Your task to perform on an android device: Find coffee shops on Maps Image 0: 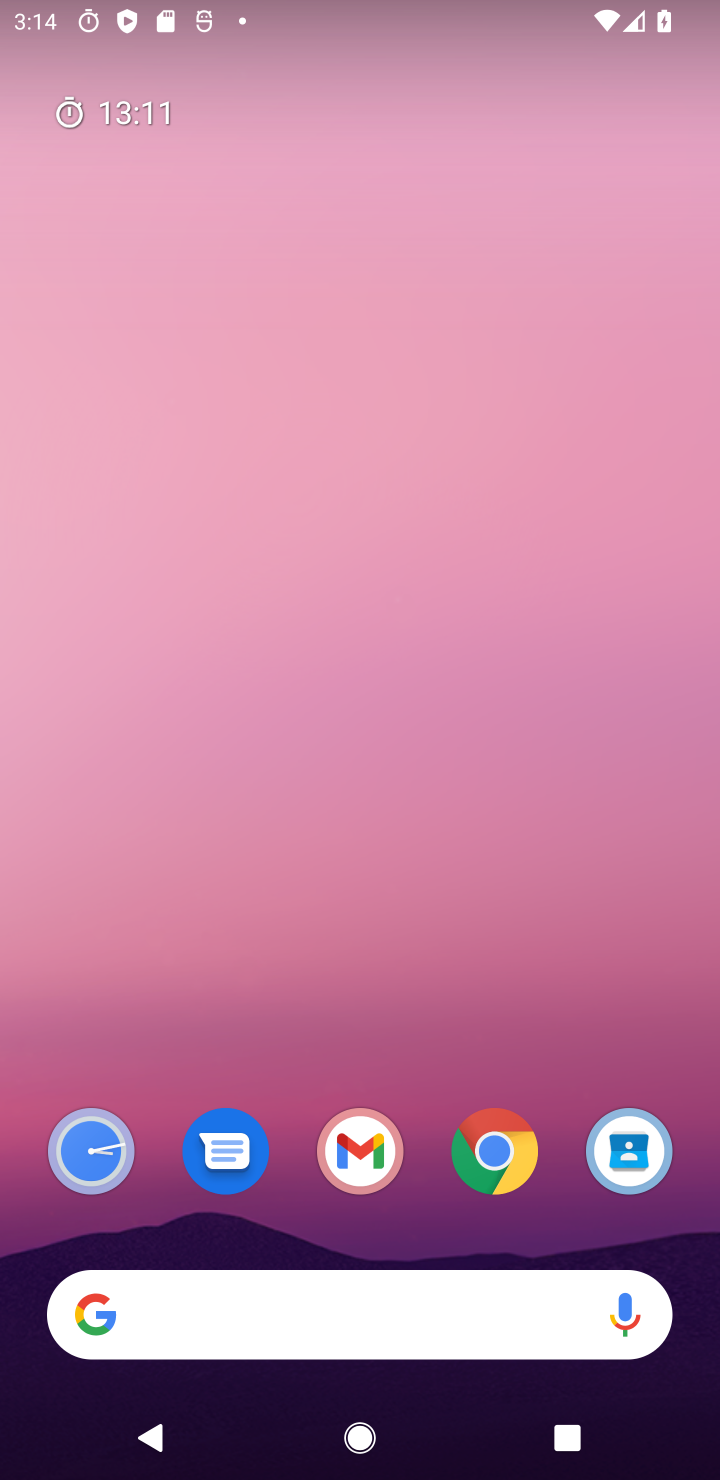
Step 0: click (503, 1181)
Your task to perform on an android device: Find coffee shops on Maps Image 1: 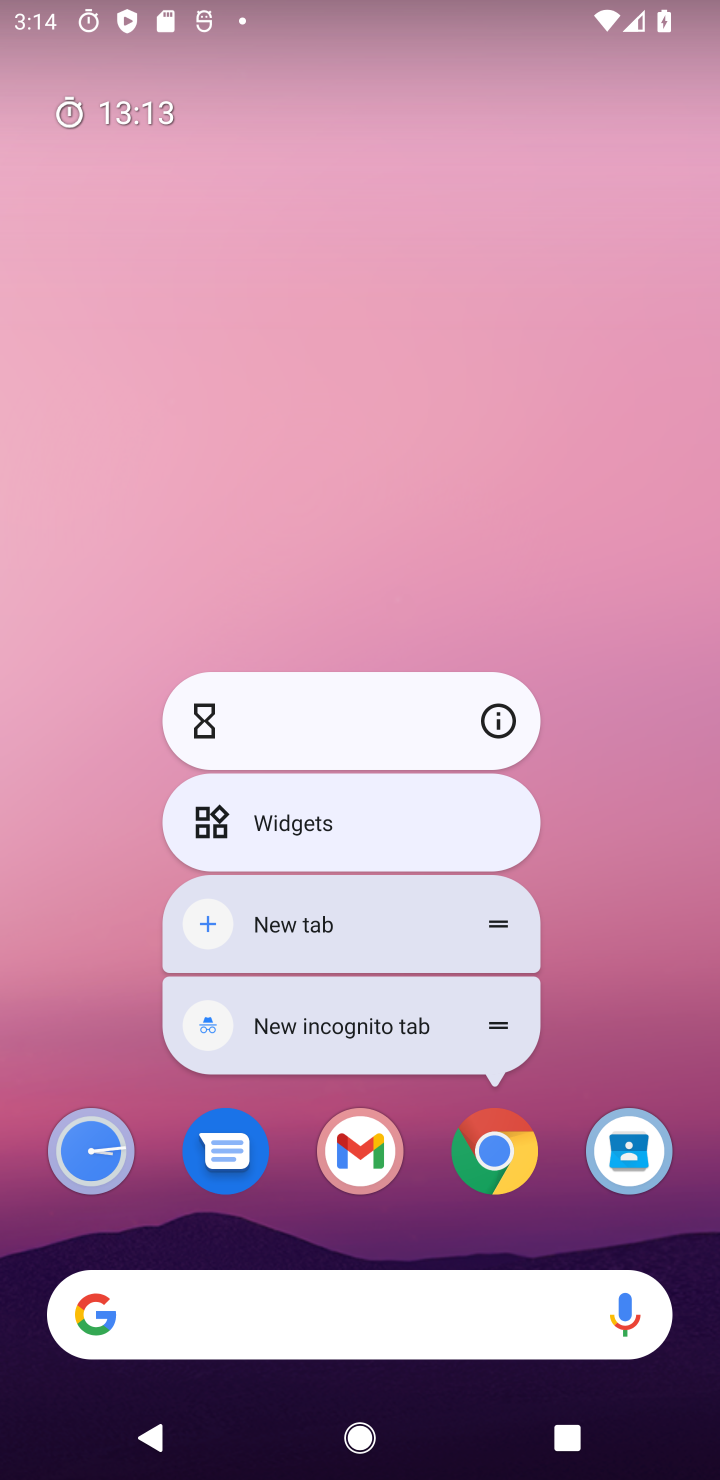
Step 1: click (503, 1181)
Your task to perform on an android device: Find coffee shops on Maps Image 2: 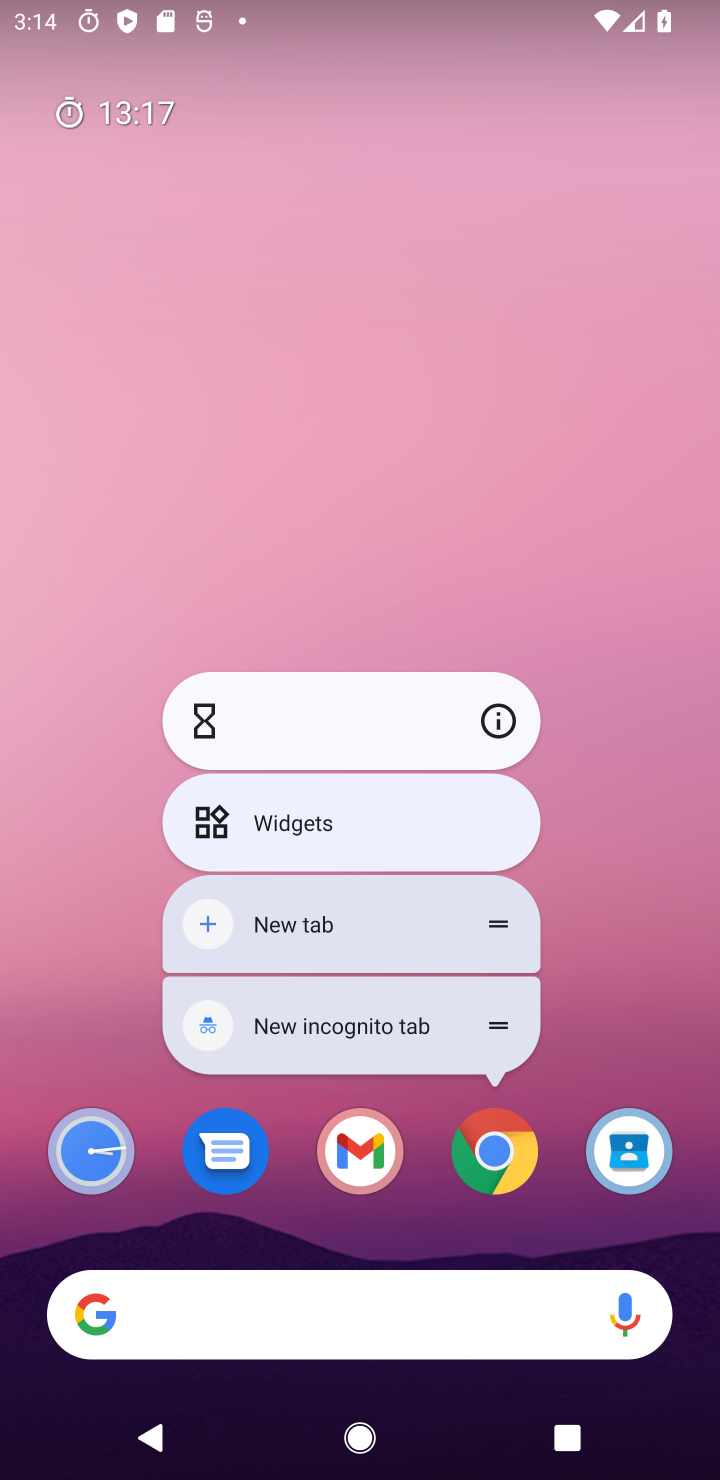
Step 2: click (479, 1143)
Your task to perform on an android device: Find coffee shops on Maps Image 3: 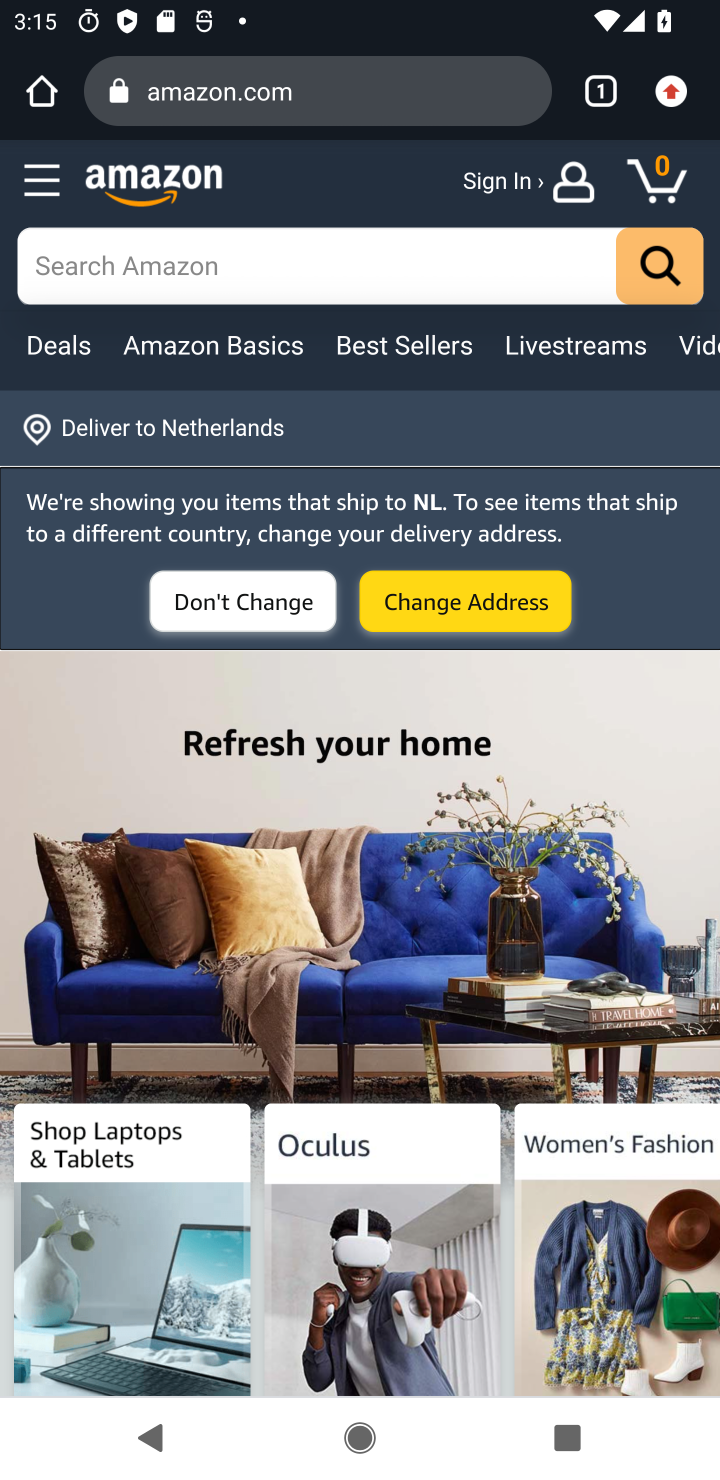
Step 3: press home button
Your task to perform on an android device: Find coffee shops on Maps Image 4: 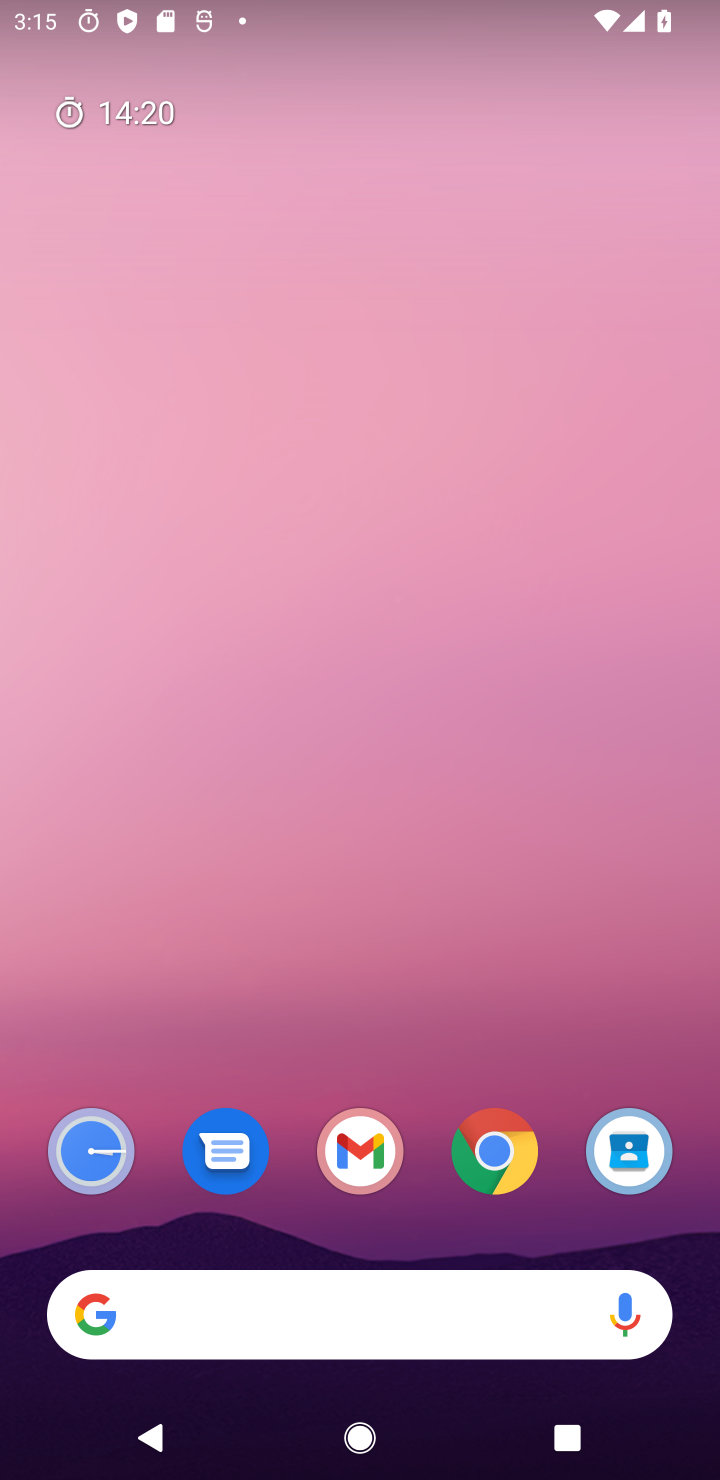
Step 4: drag from (418, 1063) to (460, 85)
Your task to perform on an android device: Find coffee shops on Maps Image 5: 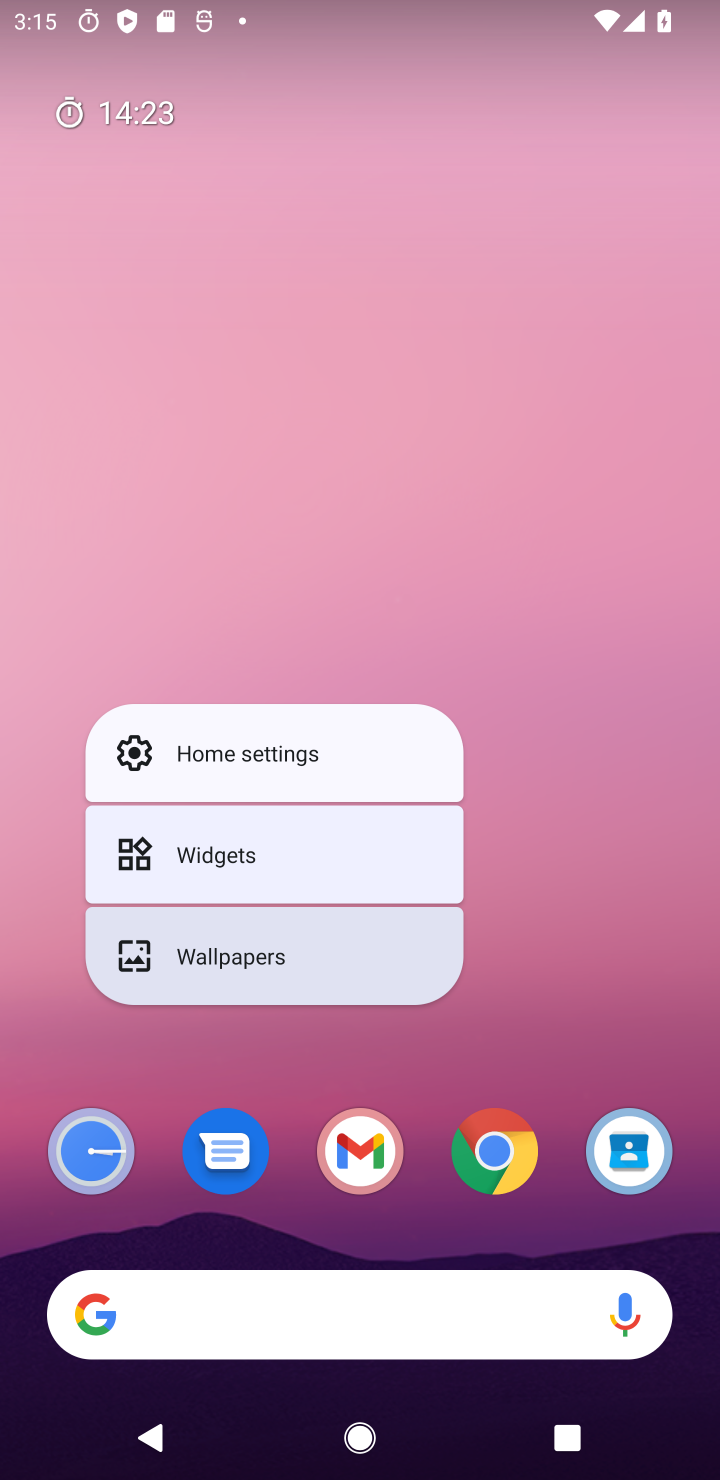
Step 5: click (661, 780)
Your task to perform on an android device: Find coffee shops on Maps Image 6: 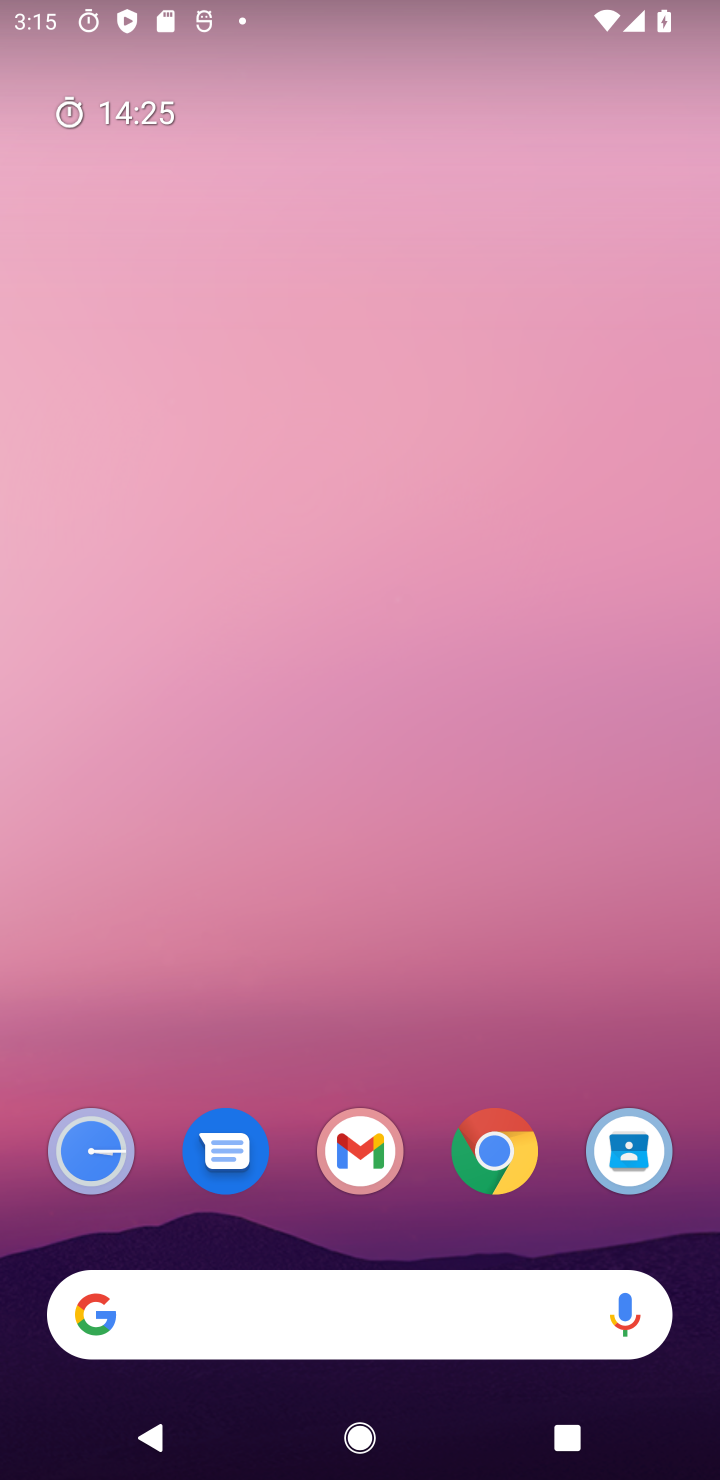
Step 6: drag from (461, 579) to (533, 0)
Your task to perform on an android device: Find coffee shops on Maps Image 7: 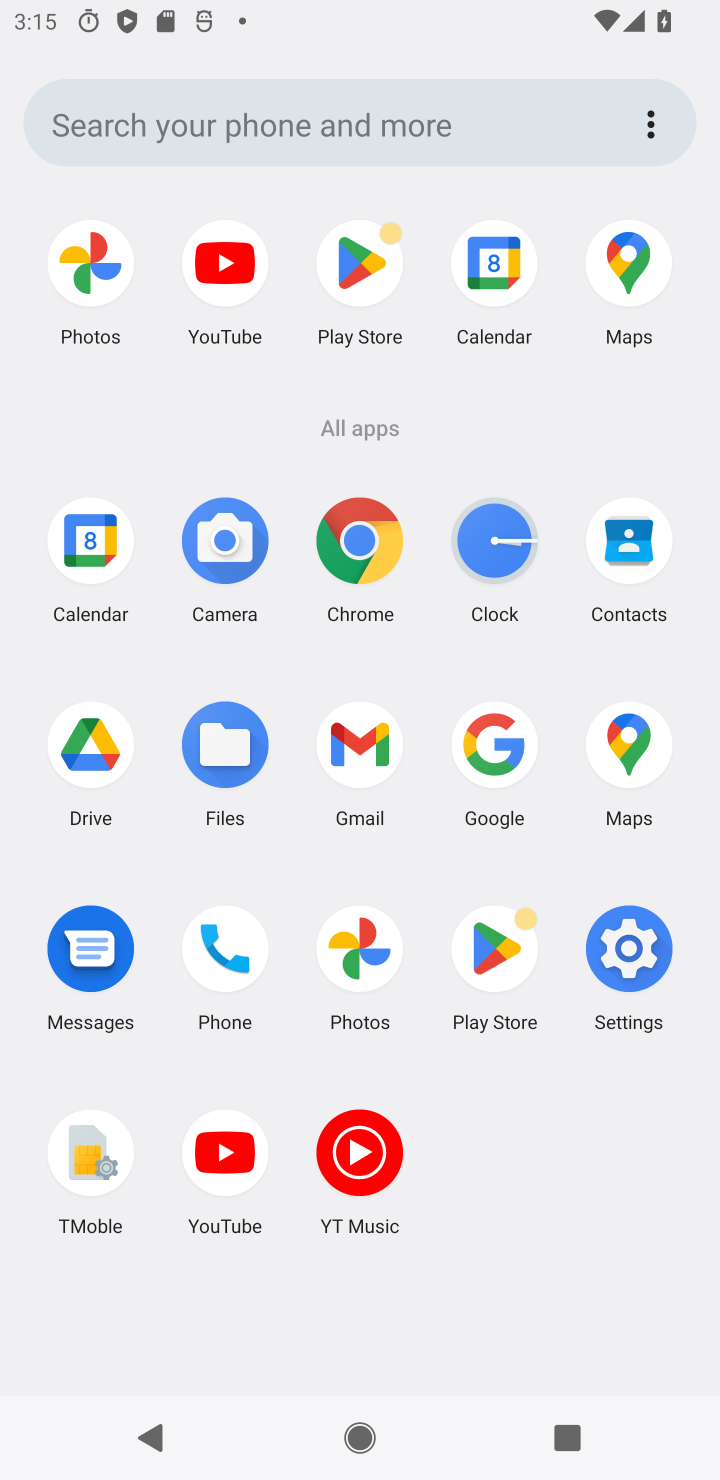
Step 7: click (637, 397)
Your task to perform on an android device: Find coffee shops on Maps Image 8: 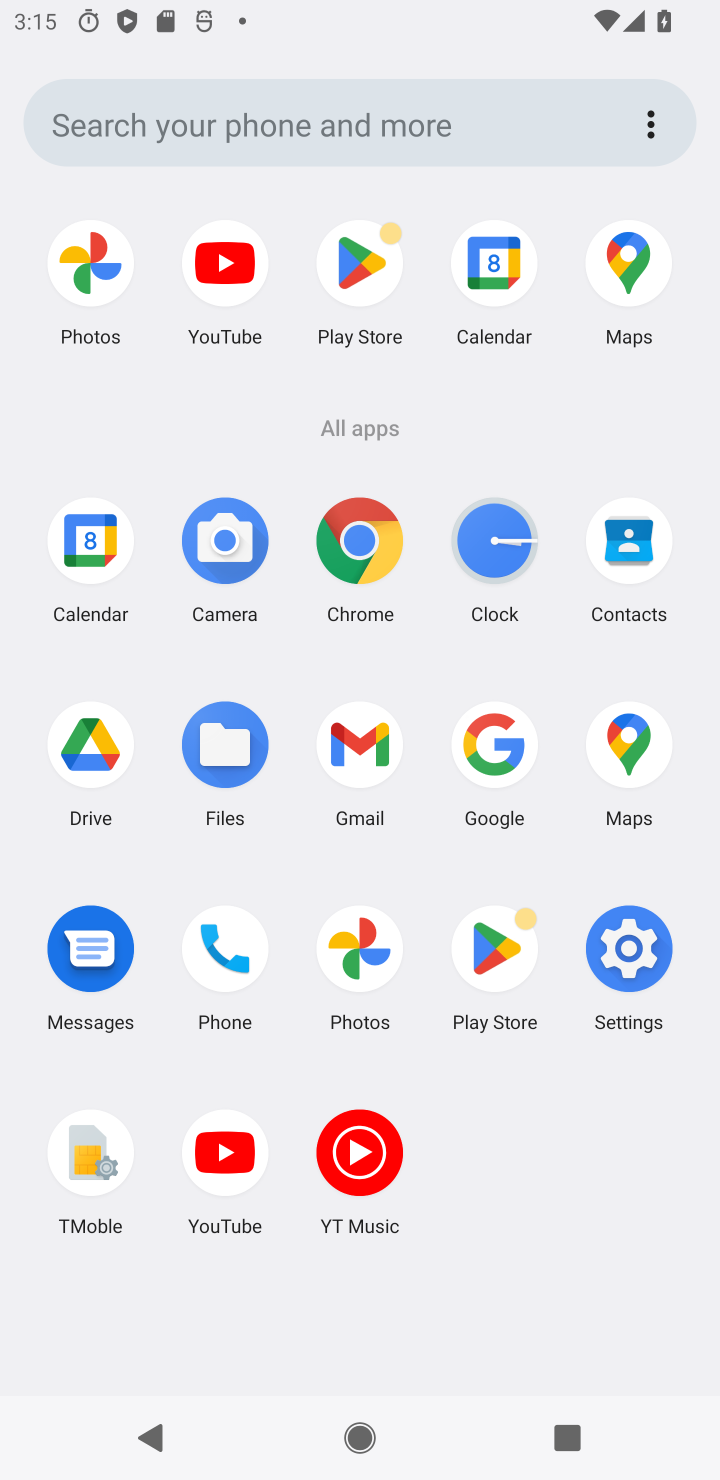
Step 8: click (638, 280)
Your task to perform on an android device: Find coffee shops on Maps Image 9: 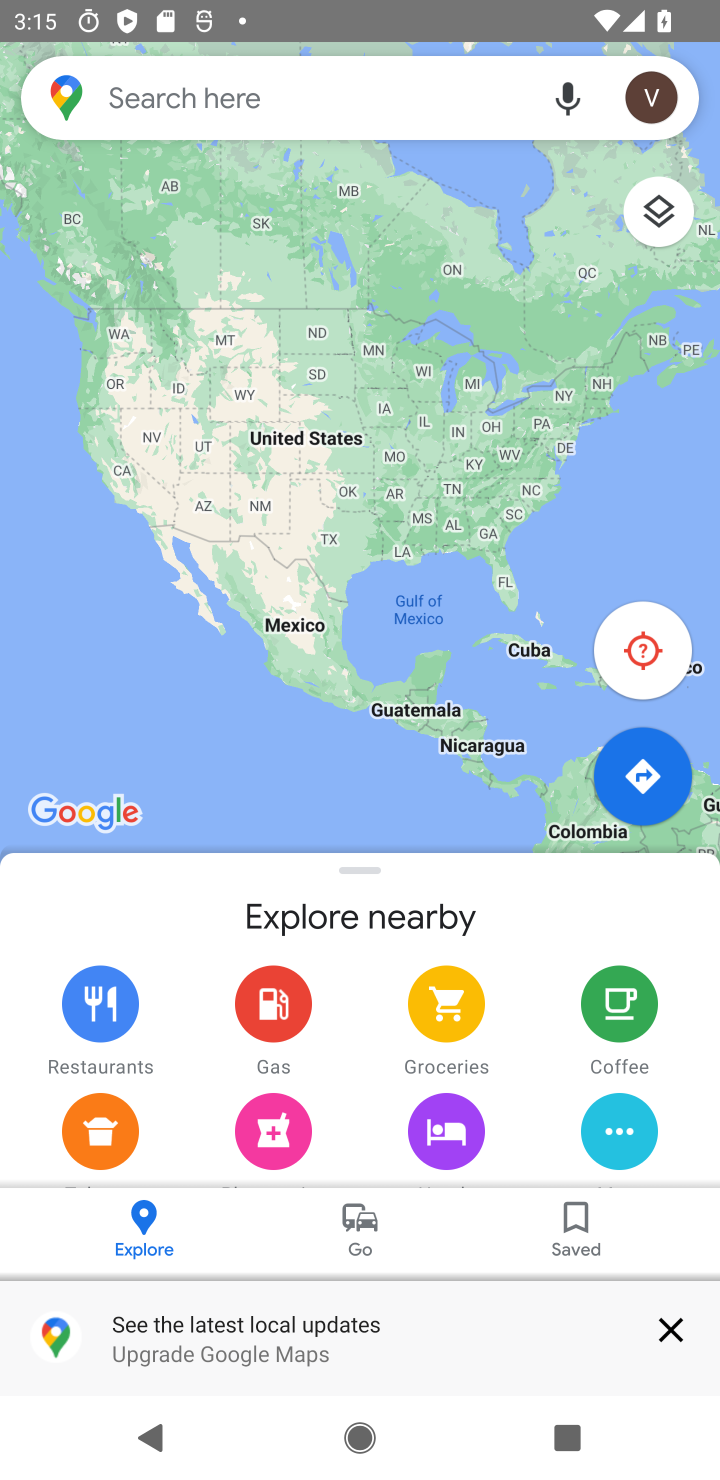
Step 9: click (247, 95)
Your task to perform on an android device: Find coffee shops on Maps Image 10: 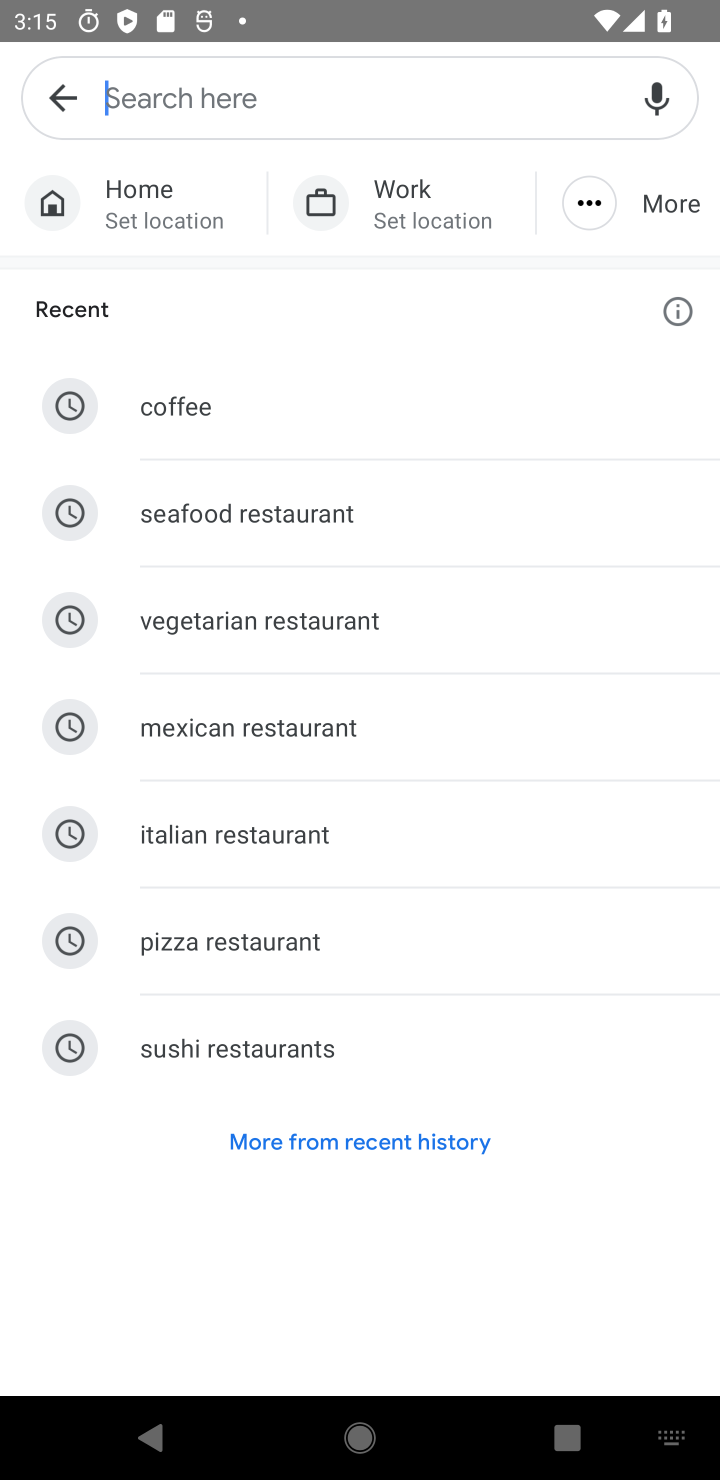
Step 10: type "coffee shops"
Your task to perform on an android device: Find coffee shops on Maps Image 11: 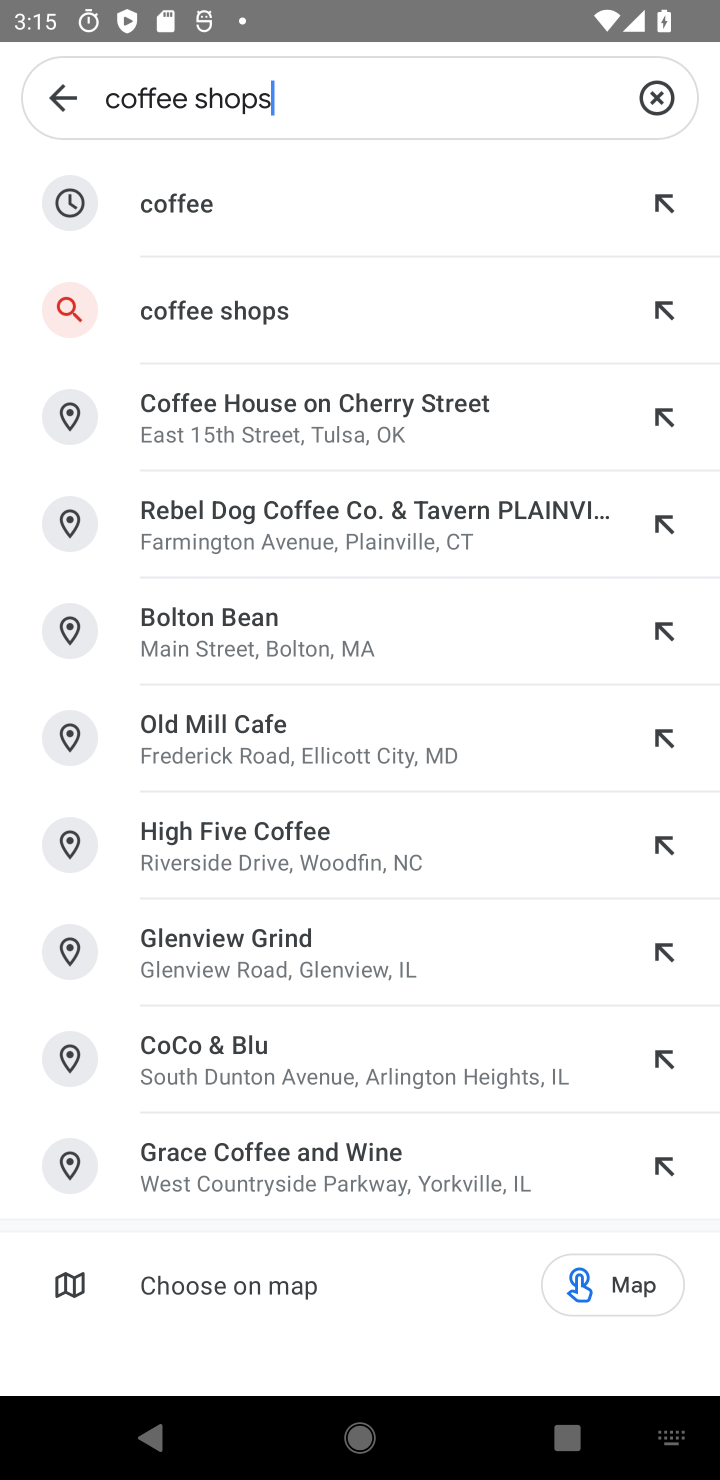
Step 11: click (233, 317)
Your task to perform on an android device: Find coffee shops on Maps Image 12: 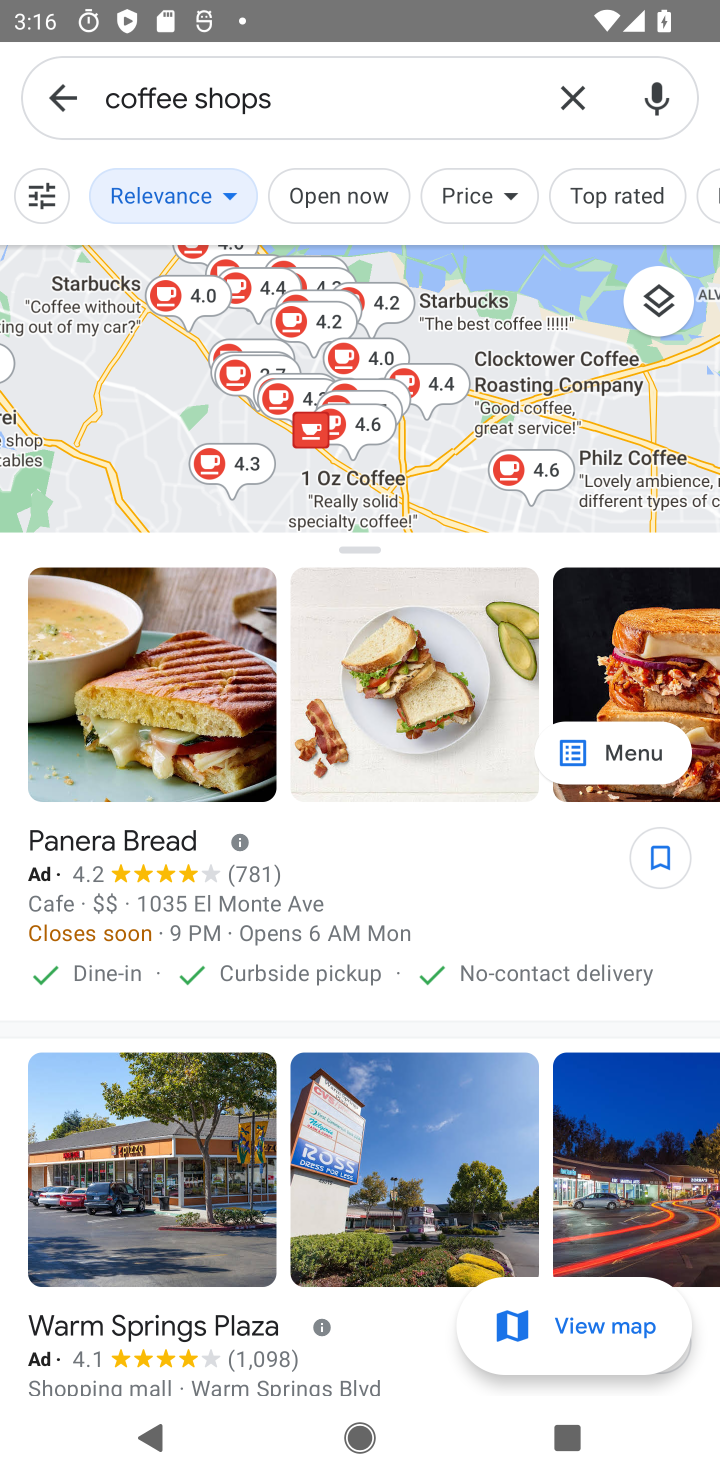
Step 12: task complete